Your task to perform on an android device: empty trash in google photos Image 0: 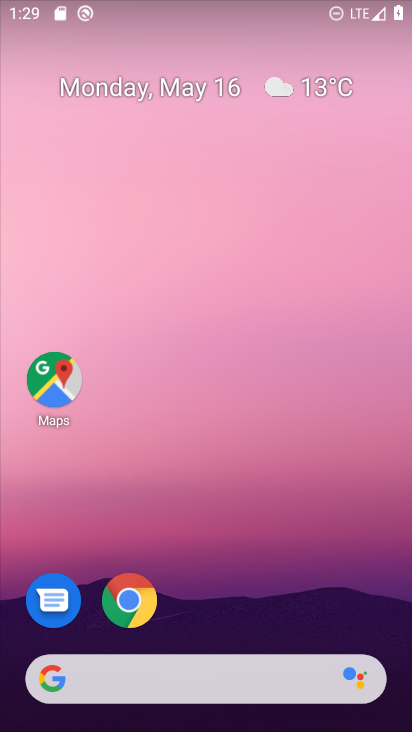
Step 0: press home button
Your task to perform on an android device: empty trash in google photos Image 1: 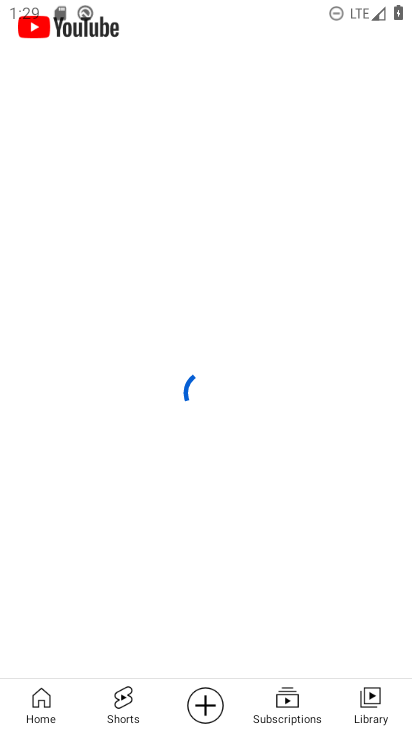
Step 1: drag from (233, 210) to (242, 27)
Your task to perform on an android device: empty trash in google photos Image 2: 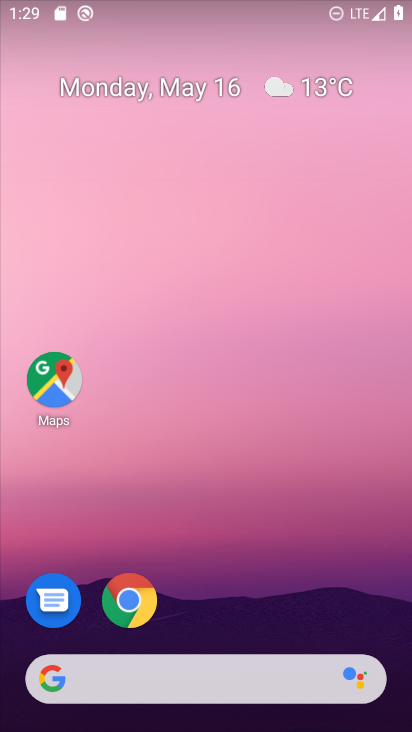
Step 2: press home button
Your task to perform on an android device: empty trash in google photos Image 3: 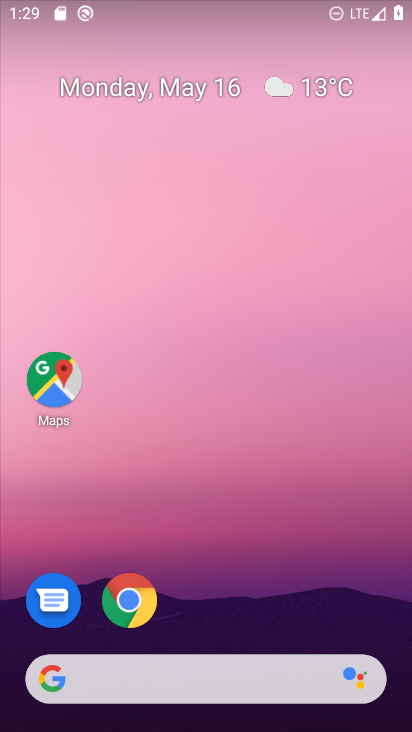
Step 3: drag from (209, 624) to (199, 89)
Your task to perform on an android device: empty trash in google photos Image 4: 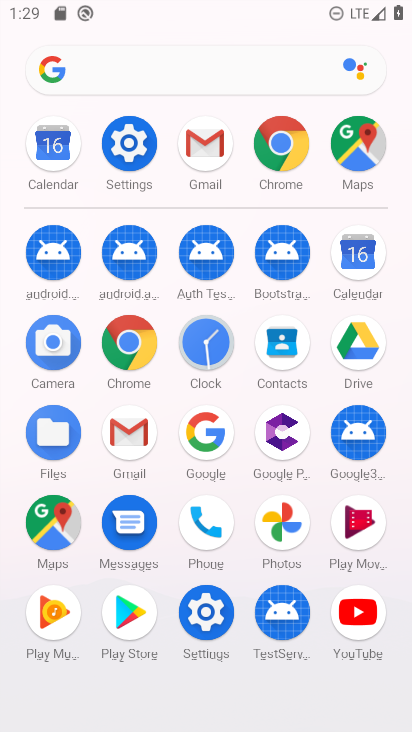
Step 4: click (283, 516)
Your task to perform on an android device: empty trash in google photos Image 5: 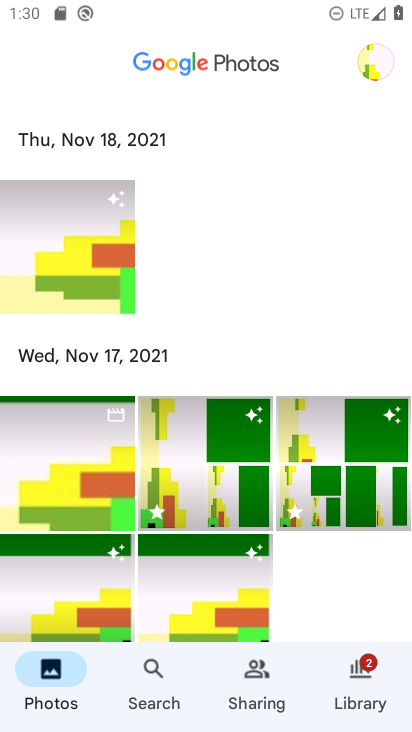
Step 5: click (370, 668)
Your task to perform on an android device: empty trash in google photos Image 6: 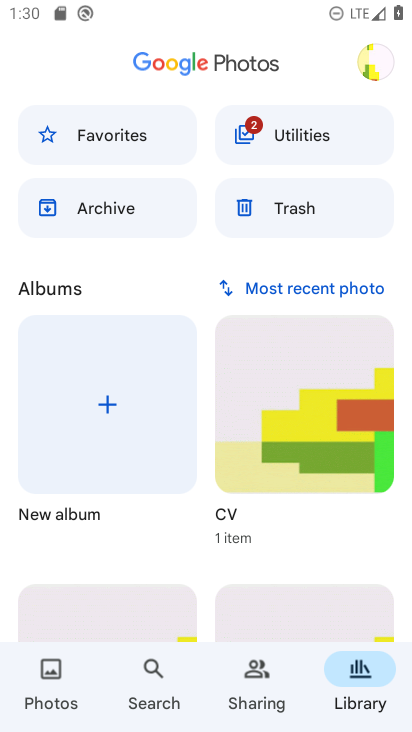
Step 6: click (279, 208)
Your task to perform on an android device: empty trash in google photos Image 7: 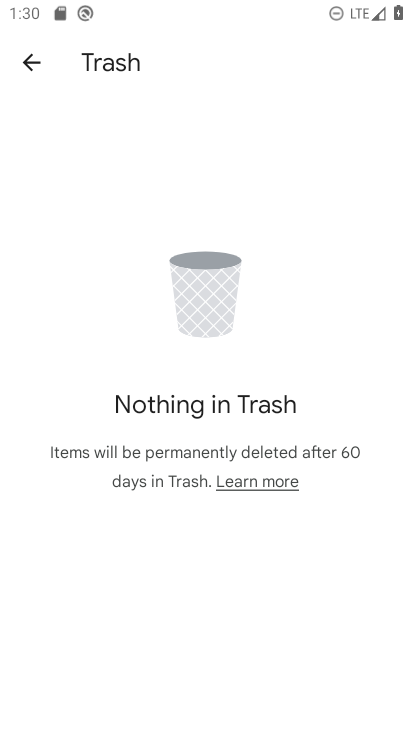
Step 7: task complete